Your task to perform on an android device: open chrome and create a bookmark for the current page Image 0: 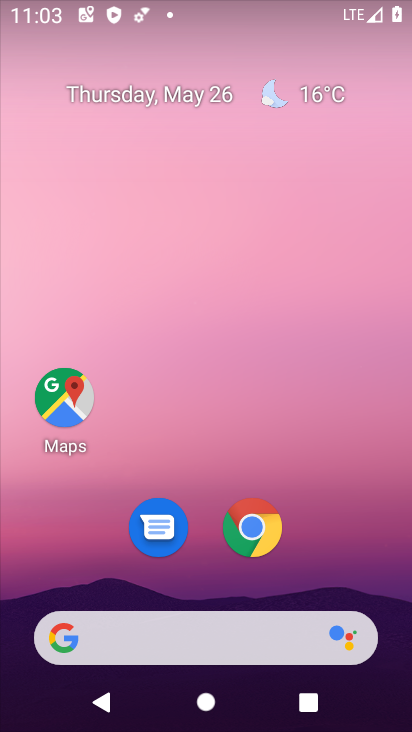
Step 0: click (235, 536)
Your task to perform on an android device: open chrome and create a bookmark for the current page Image 1: 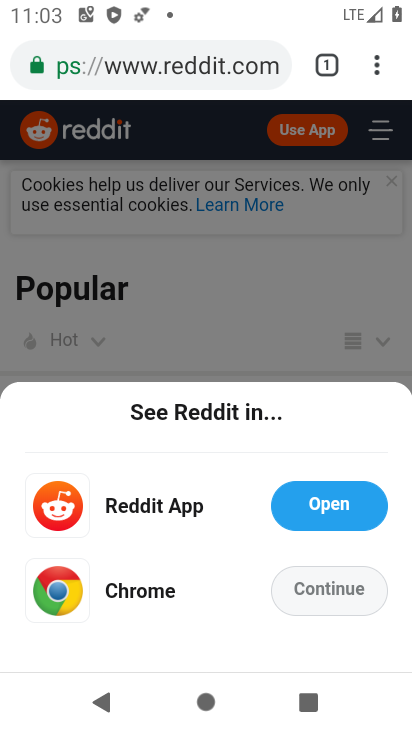
Step 1: click (378, 64)
Your task to perform on an android device: open chrome and create a bookmark for the current page Image 2: 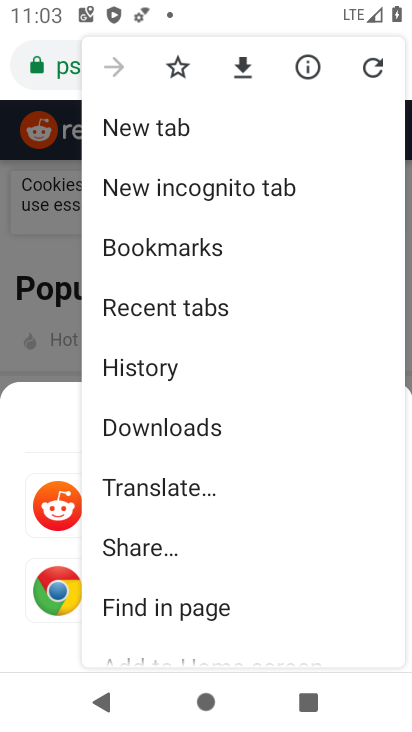
Step 2: click (184, 60)
Your task to perform on an android device: open chrome and create a bookmark for the current page Image 3: 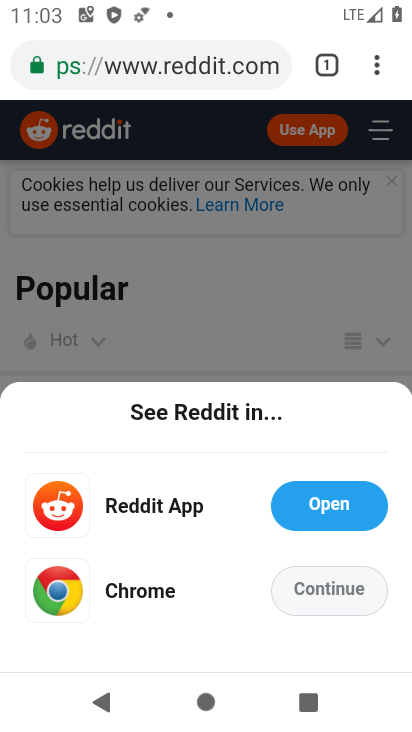
Step 3: task complete